Your task to perform on an android device: What is the recent news? Image 0: 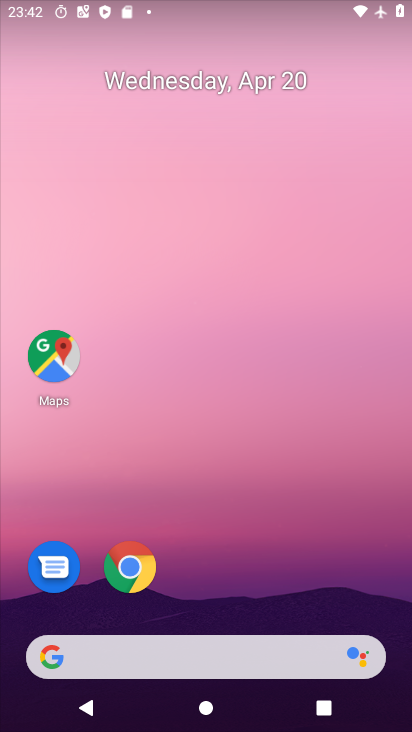
Step 0: drag from (277, 642) to (281, 234)
Your task to perform on an android device: What is the recent news? Image 1: 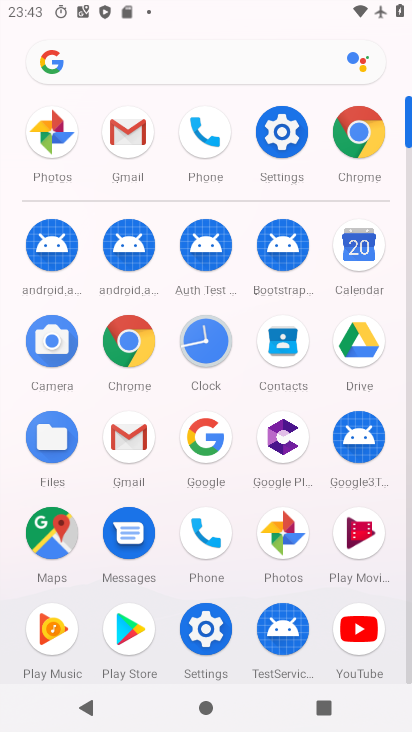
Step 1: click (139, 332)
Your task to perform on an android device: What is the recent news? Image 2: 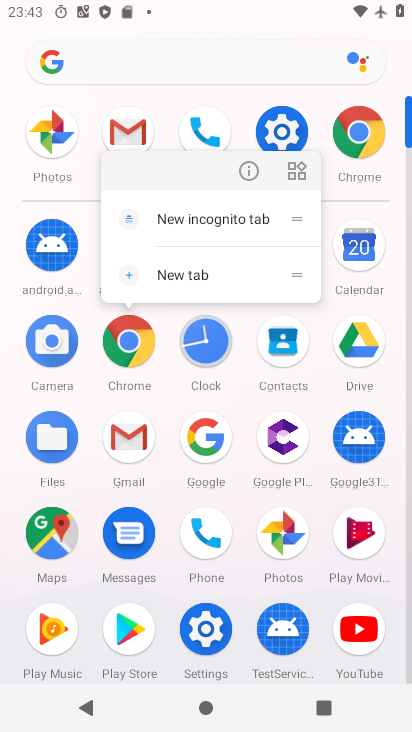
Step 2: click (138, 332)
Your task to perform on an android device: What is the recent news? Image 3: 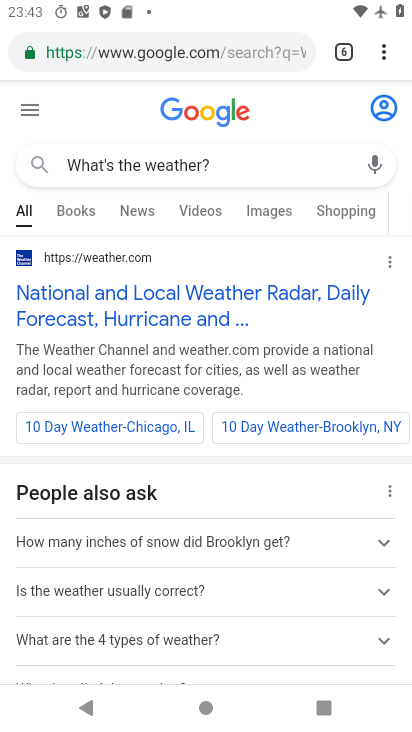
Step 3: click (381, 48)
Your task to perform on an android device: What is the recent news? Image 4: 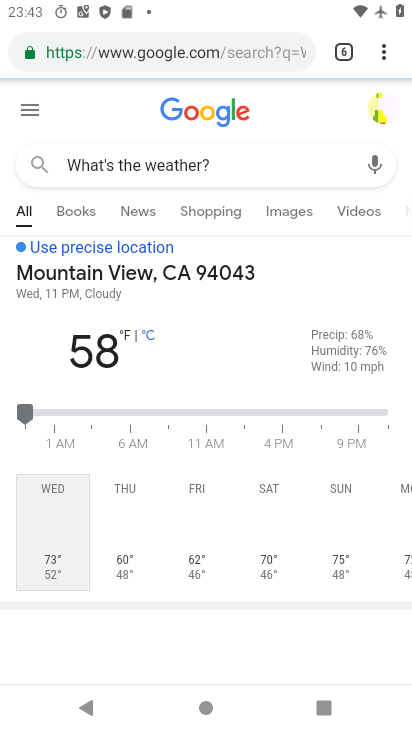
Step 4: click (364, 50)
Your task to perform on an android device: What is the recent news? Image 5: 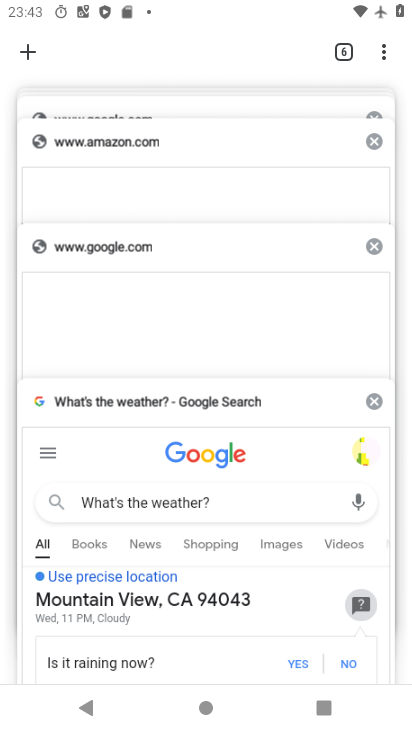
Step 5: click (373, 41)
Your task to perform on an android device: What is the recent news? Image 6: 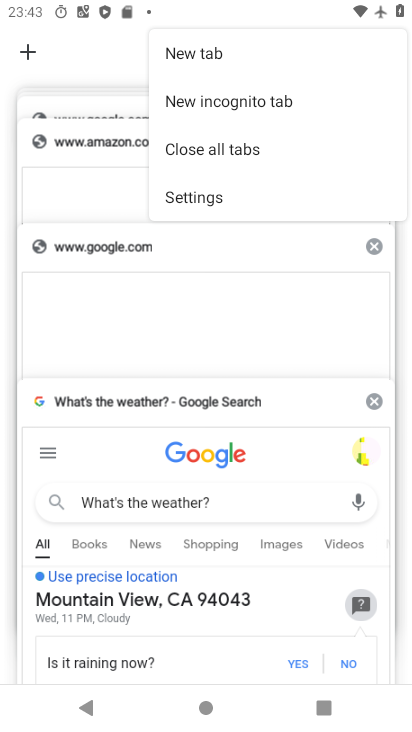
Step 6: click (319, 46)
Your task to perform on an android device: What is the recent news? Image 7: 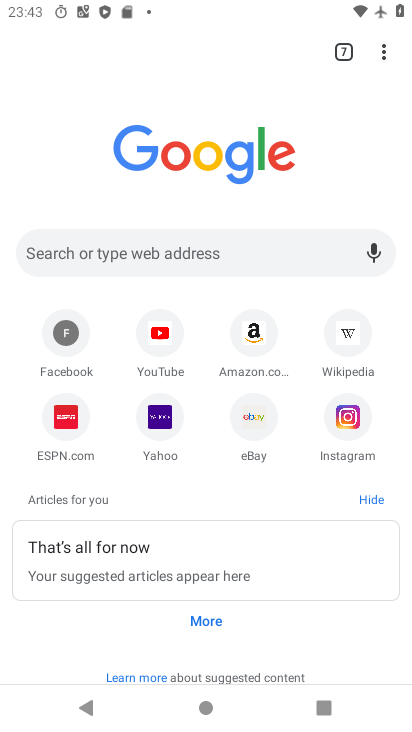
Step 7: click (174, 259)
Your task to perform on an android device: What is the recent news? Image 8: 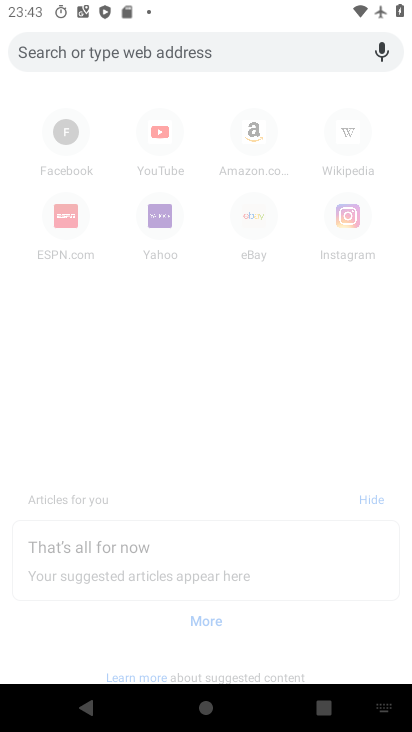
Step 8: type "What is the recent news?"
Your task to perform on an android device: What is the recent news? Image 9: 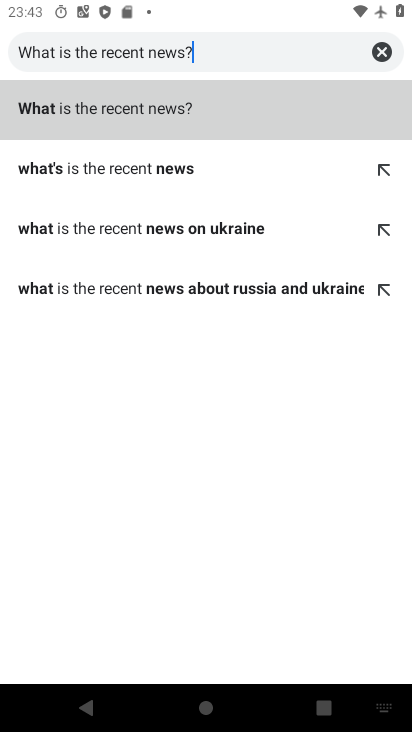
Step 9: click (188, 162)
Your task to perform on an android device: What is the recent news? Image 10: 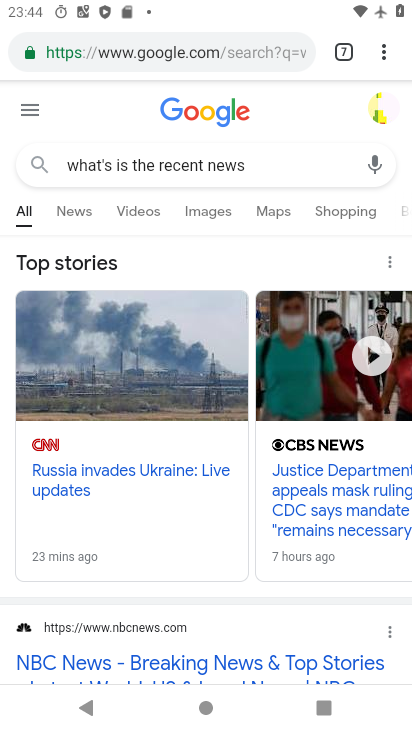
Step 10: task complete